Your task to perform on an android device: turn off smart reply in the gmail app Image 0: 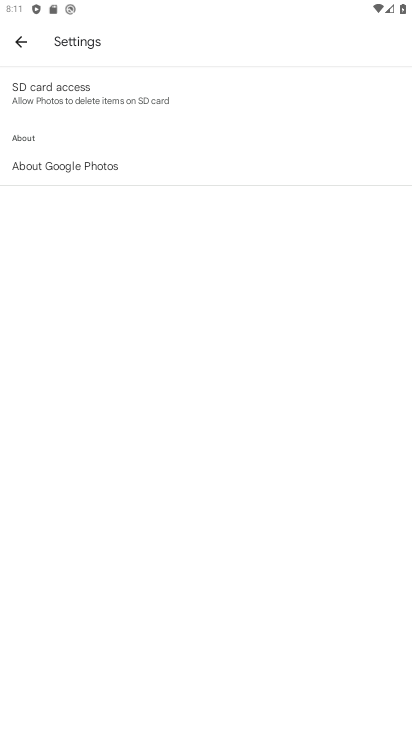
Step 0: type ""
Your task to perform on an android device: turn off smart reply in the gmail app Image 1: 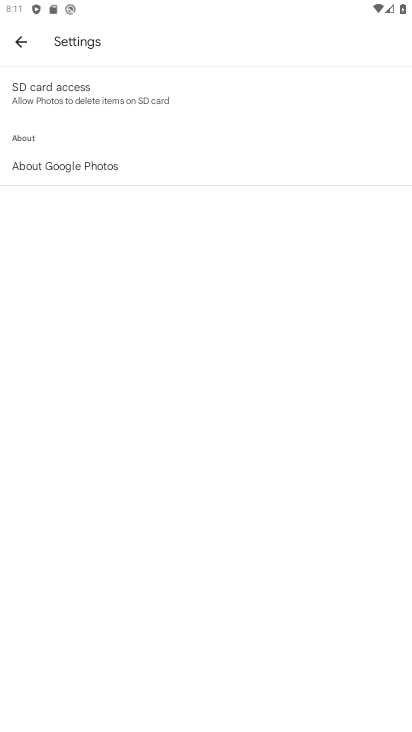
Step 1: press home button
Your task to perform on an android device: turn off smart reply in the gmail app Image 2: 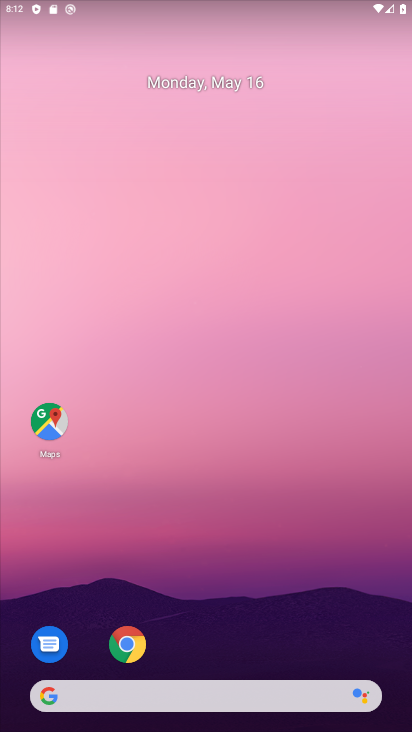
Step 2: drag from (204, 726) to (180, 174)
Your task to perform on an android device: turn off smart reply in the gmail app Image 3: 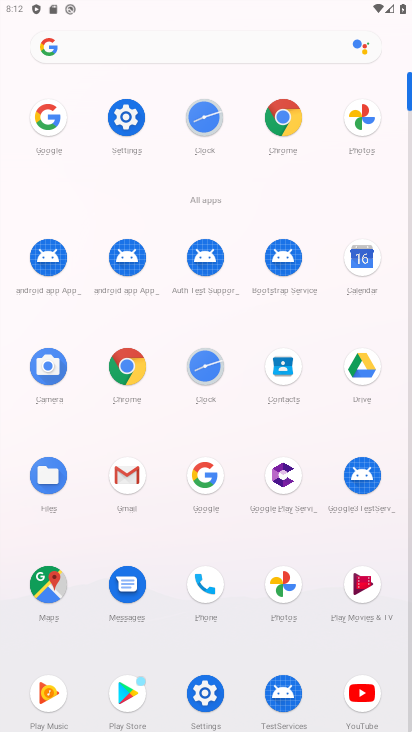
Step 3: click (132, 484)
Your task to perform on an android device: turn off smart reply in the gmail app Image 4: 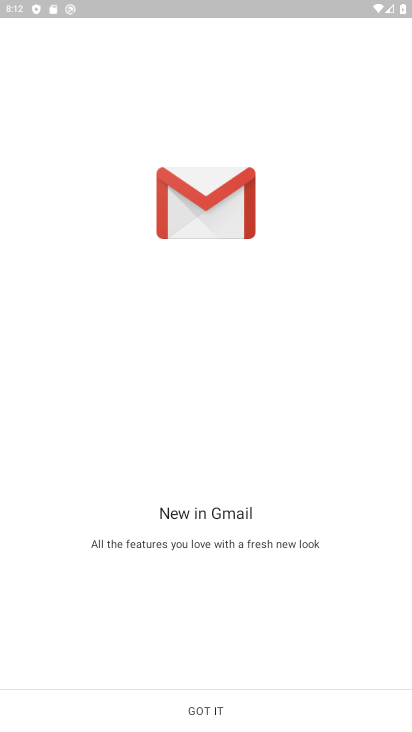
Step 4: click (247, 718)
Your task to perform on an android device: turn off smart reply in the gmail app Image 5: 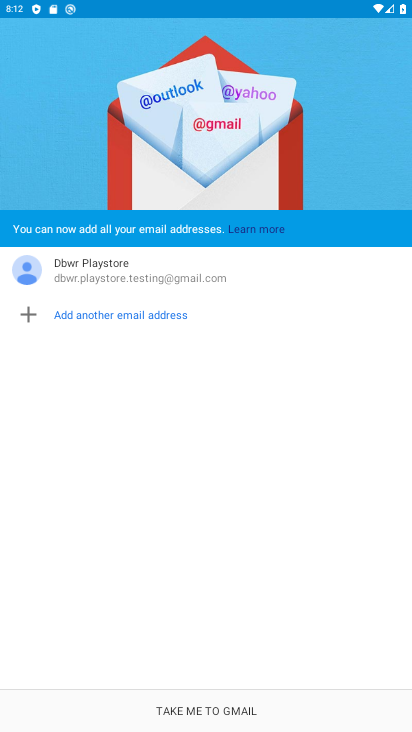
Step 5: click (244, 714)
Your task to perform on an android device: turn off smart reply in the gmail app Image 6: 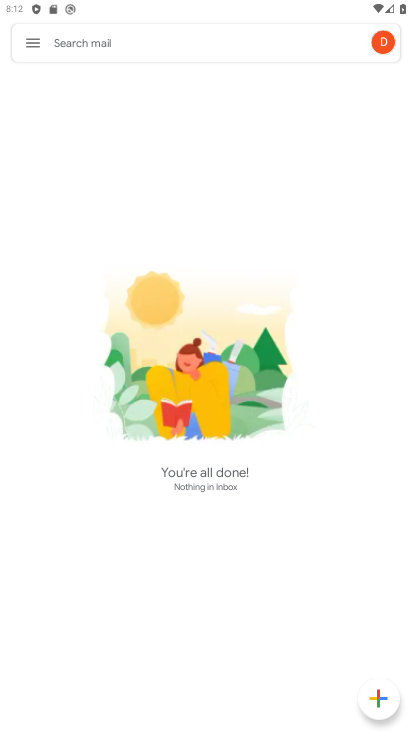
Step 6: click (38, 38)
Your task to perform on an android device: turn off smart reply in the gmail app Image 7: 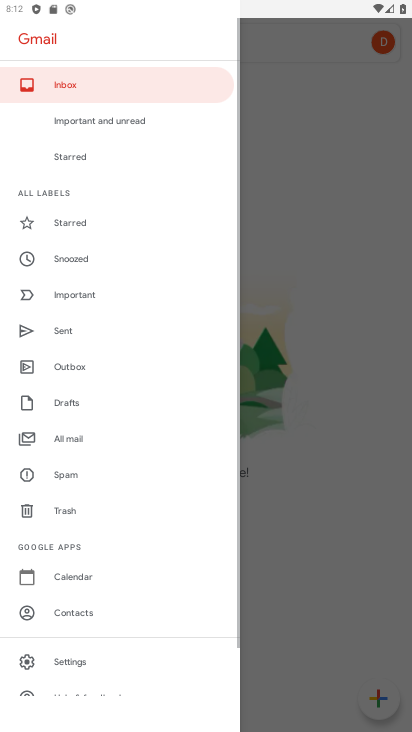
Step 7: click (57, 666)
Your task to perform on an android device: turn off smart reply in the gmail app Image 8: 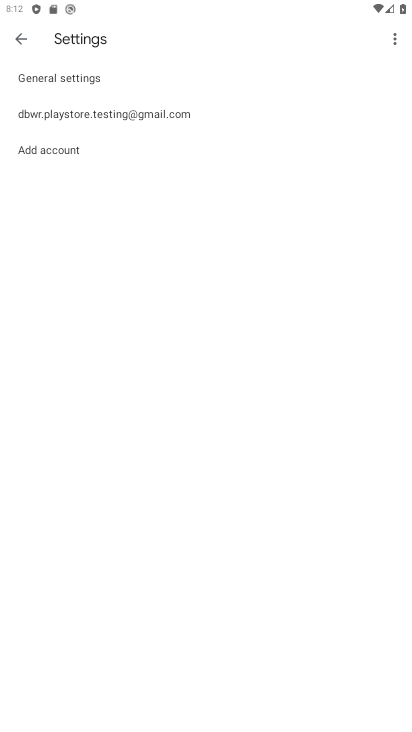
Step 8: click (87, 113)
Your task to perform on an android device: turn off smart reply in the gmail app Image 9: 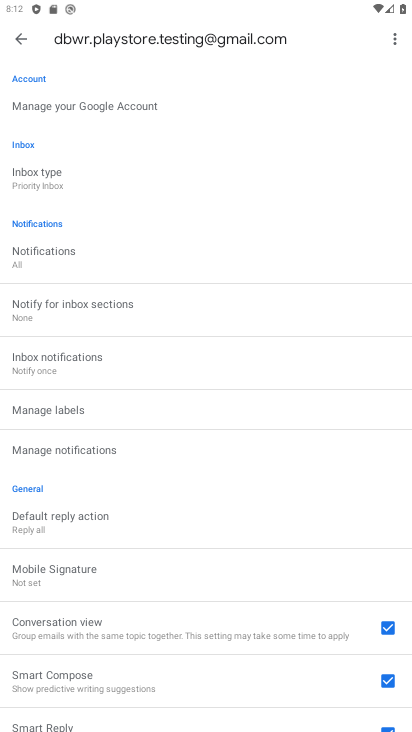
Step 9: drag from (202, 622) to (173, 205)
Your task to perform on an android device: turn off smart reply in the gmail app Image 10: 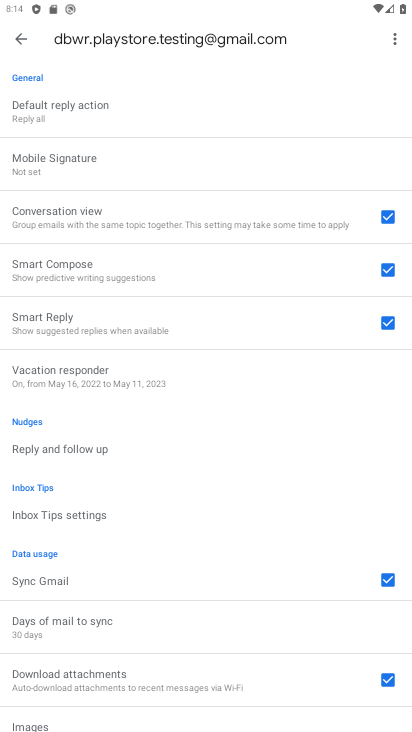
Step 10: click (387, 317)
Your task to perform on an android device: turn off smart reply in the gmail app Image 11: 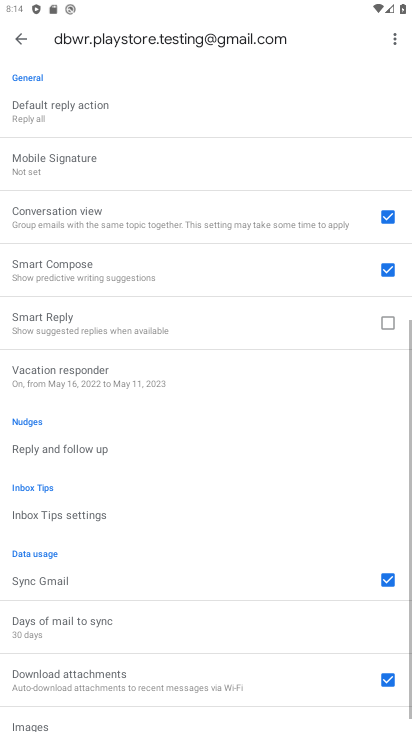
Step 11: task complete